Your task to perform on an android device: clear history in the chrome app Image 0: 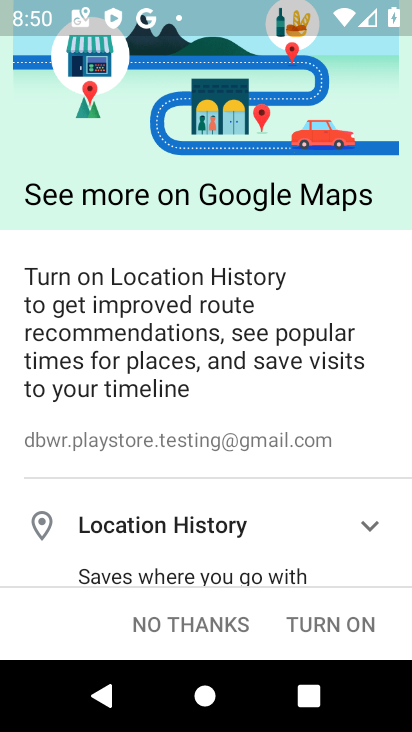
Step 0: drag from (238, 566) to (287, 253)
Your task to perform on an android device: clear history in the chrome app Image 1: 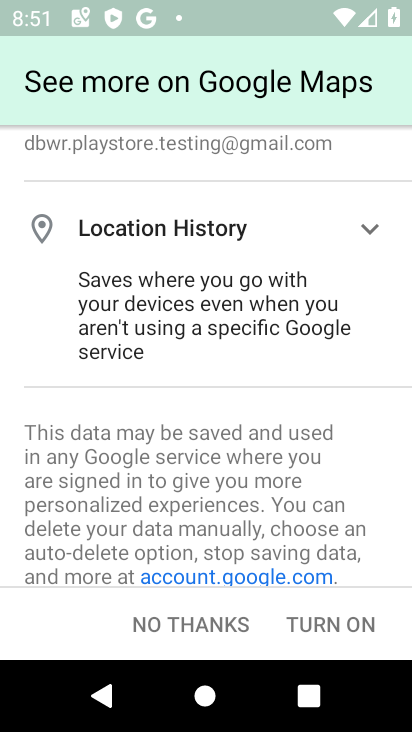
Step 1: press home button
Your task to perform on an android device: clear history in the chrome app Image 2: 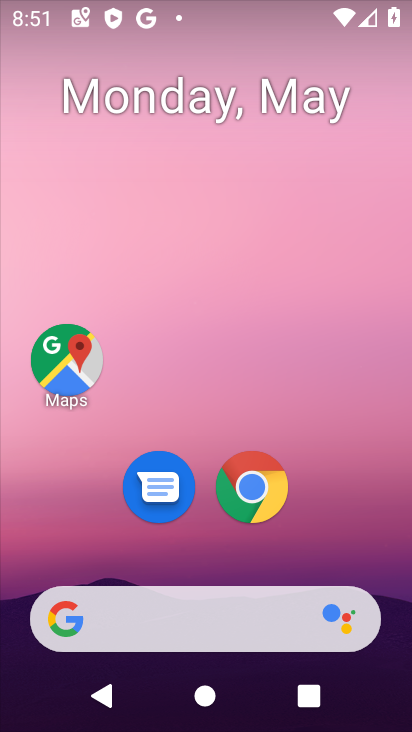
Step 2: click (257, 482)
Your task to perform on an android device: clear history in the chrome app Image 3: 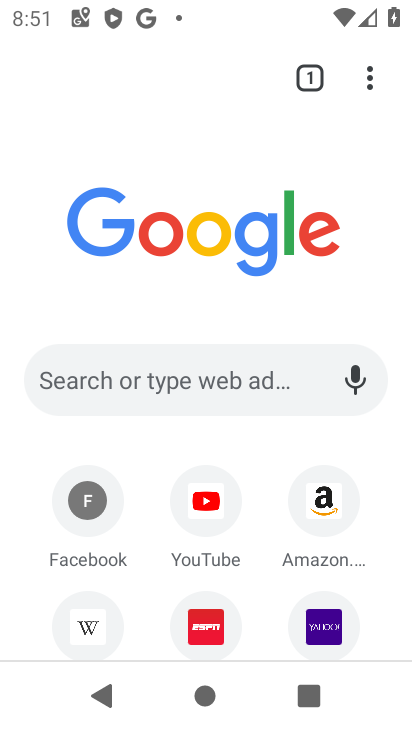
Step 3: click (380, 85)
Your task to perform on an android device: clear history in the chrome app Image 4: 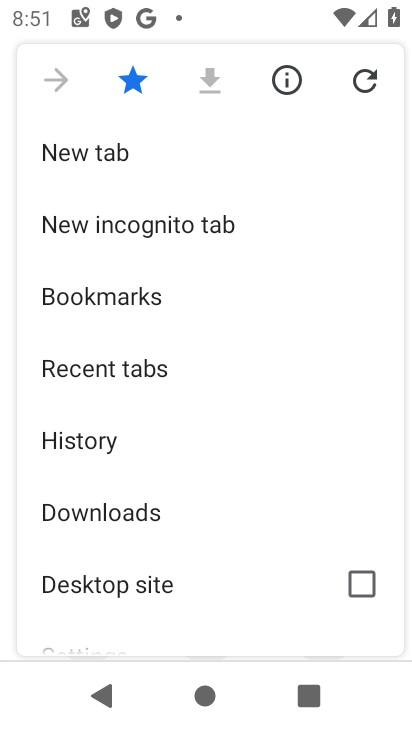
Step 4: click (125, 438)
Your task to perform on an android device: clear history in the chrome app Image 5: 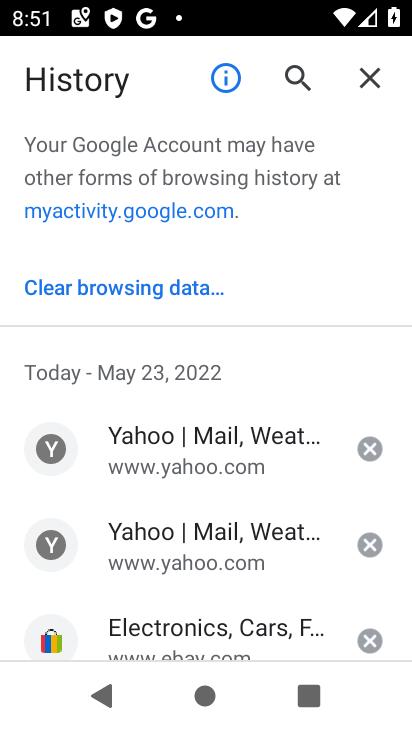
Step 5: click (116, 285)
Your task to perform on an android device: clear history in the chrome app Image 6: 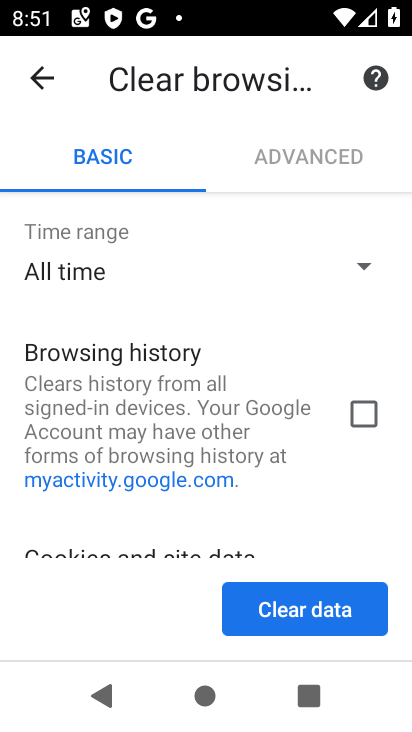
Step 6: click (354, 422)
Your task to perform on an android device: clear history in the chrome app Image 7: 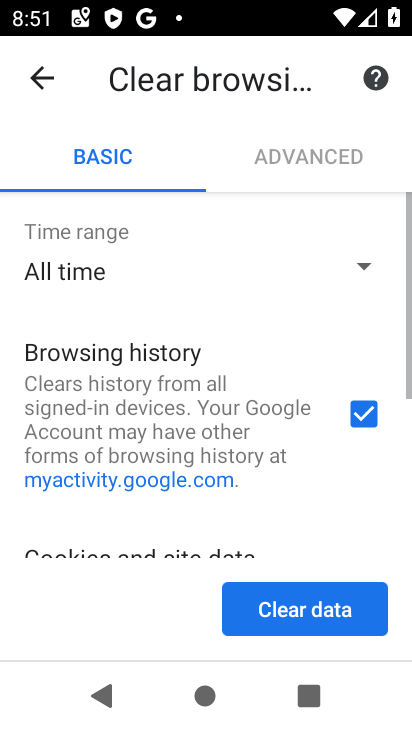
Step 7: click (295, 603)
Your task to perform on an android device: clear history in the chrome app Image 8: 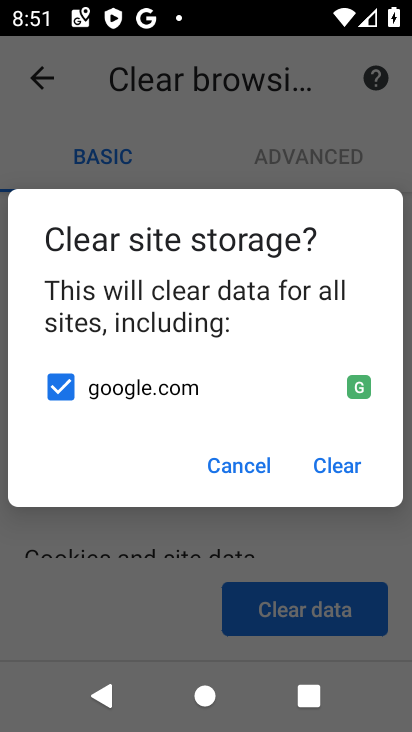
Step 8: click (351, 467)
Your task to perform on an android device: clear history in the chrome app Image 9: 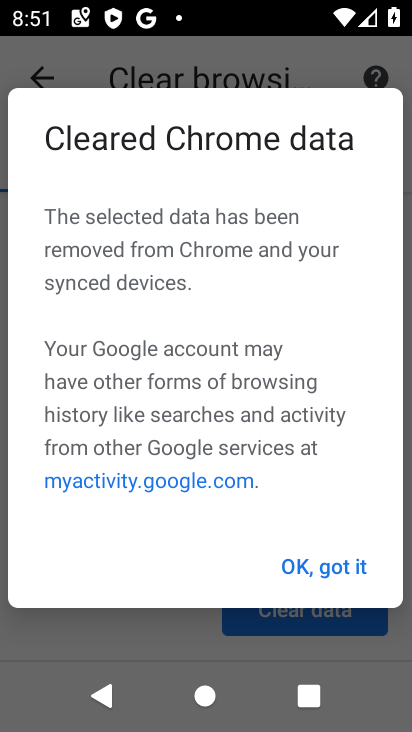
Step 9: task complete